Your task to perform on an android device: turn on notifications settings in the gmail app Image 0: 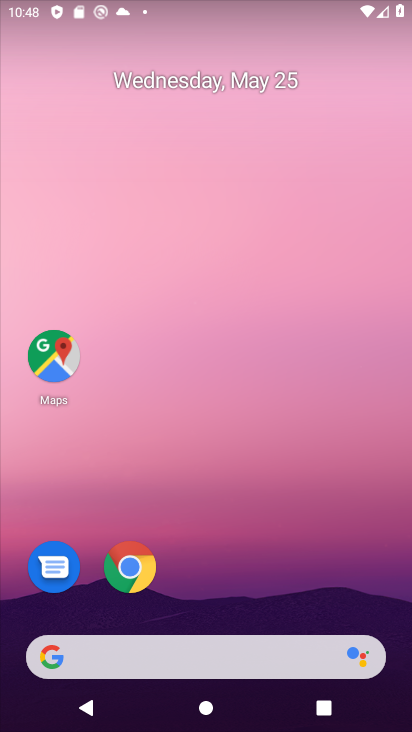
Step 0: drag from (181, 635) to (273, 134)
Your task to perform on an android device: turn on notifications settings in the gmail app Image 1: 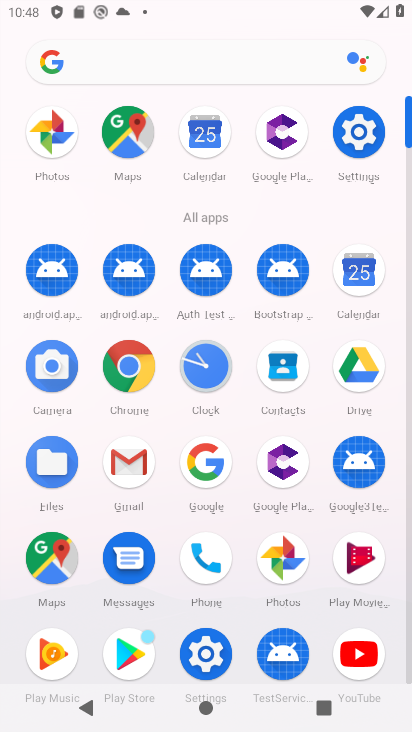
Step 1: click (128, 462)
Your task to perform on an android device: turn on notifications settings in the gmail app Image 2: 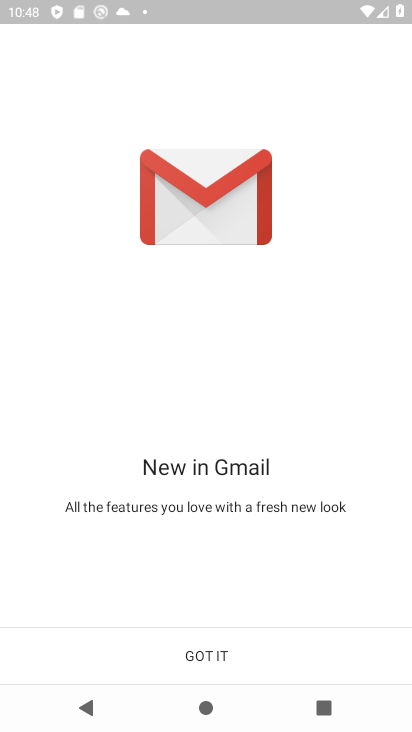
Step 2: click (199, 659)
Your task to perform on an android device: turn on notifications settings in the gmail app Image 3: 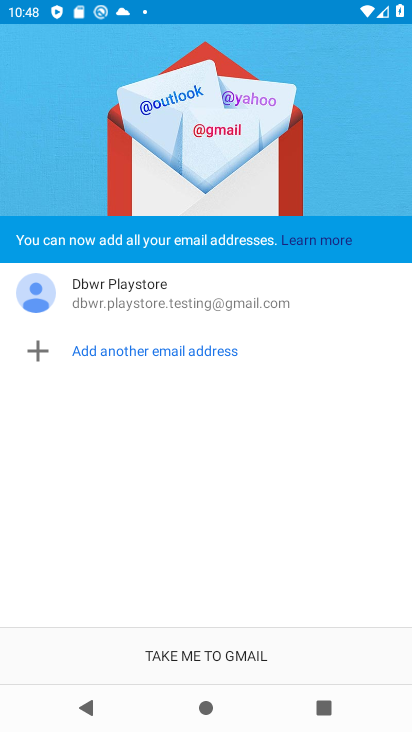
Step 3: click (199, 659)
Your task to perform on an android device: turn on notifications settings in the gmail app Image 4: 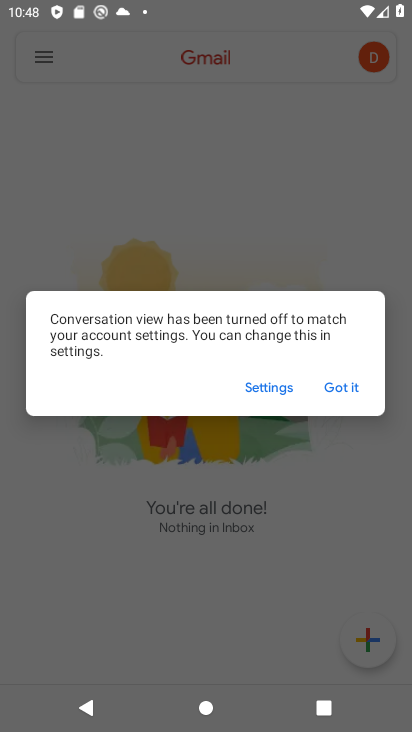
Step 4: click (343, 394)
Your task to perform on an android device: turn on notifications settings in the gmail app Image 5: 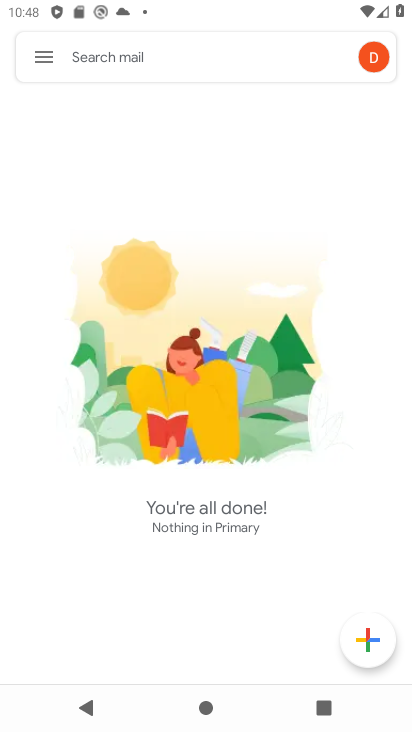
Step 5: click (37, 58)
Your task to perform on an android device: turn on notifications settings in the gmail app Image 6: 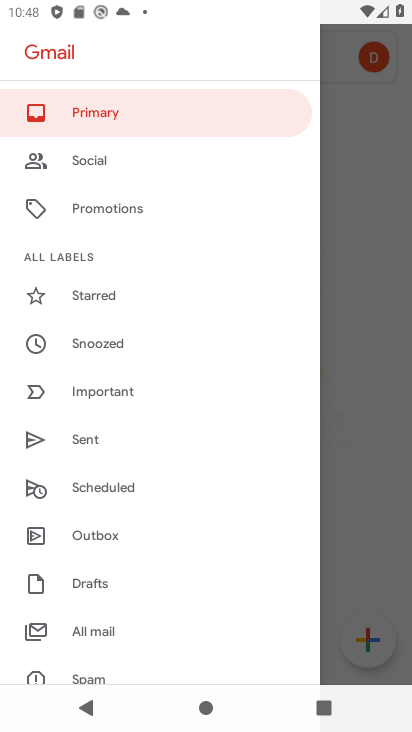
Step 6: drag from (92, 611) to (107, 384)
Your task to perform on an android device: turn on notifications settings in the gmail app Image 7: 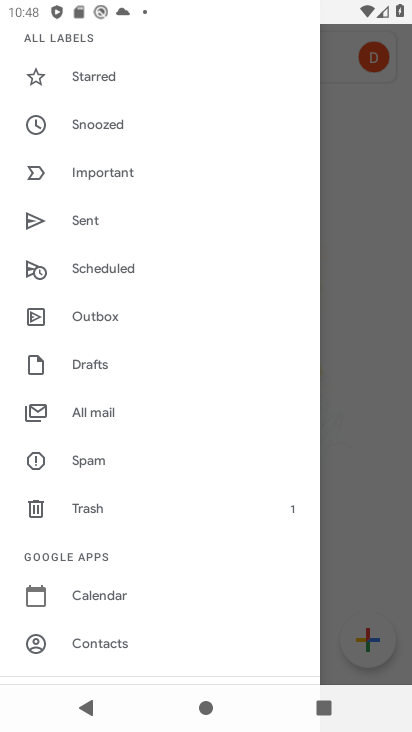
Step 7: drag from (117, 592) to (122, 414)
Your task to perform on an android device: turn on notifications settings in the gmail app Image 8: 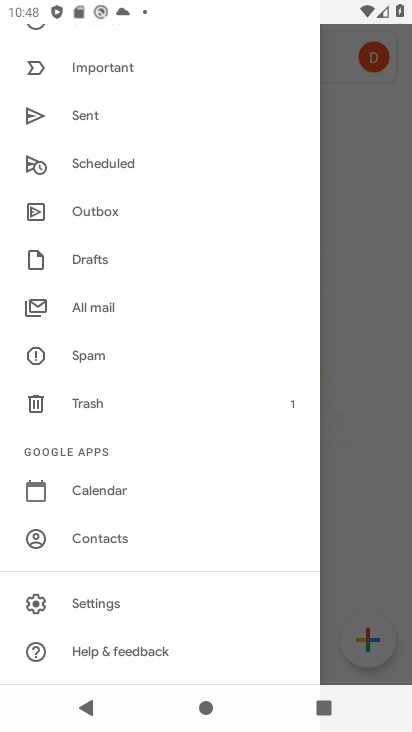
Step 8: click (90, 610)
Your task to perform on an android device: turn on notifications settings in the gmail app Image 9: 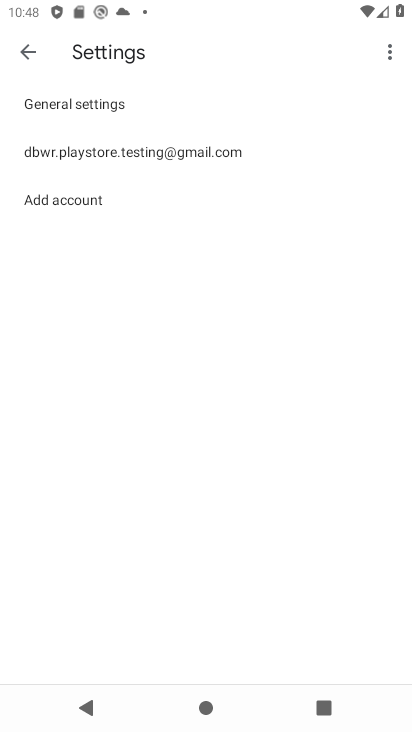
Step 9: click (103, 127)
Your task to perform on an android device: turn on notifications settings in the gmail app Image 10: 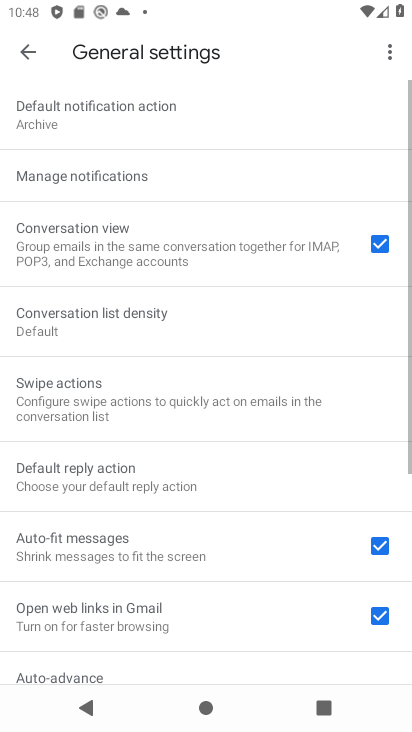
Step 10: click (115, 171)
Your task to perform on an android device: turn on notifications settings in the gmail app Image 11: 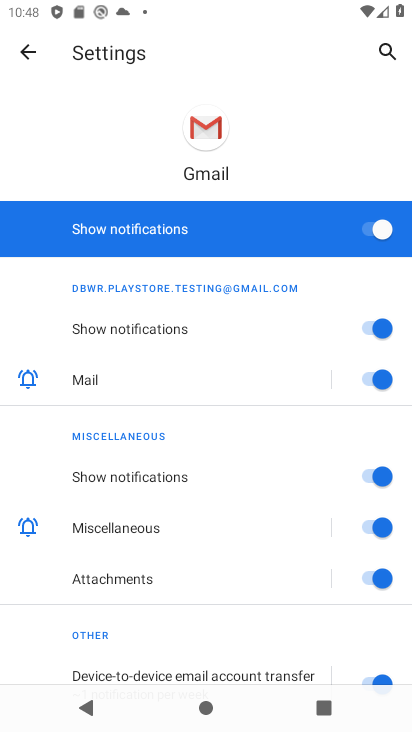
Step 11: task complete